Your task to perform on an android device: check out phone information Image 0: 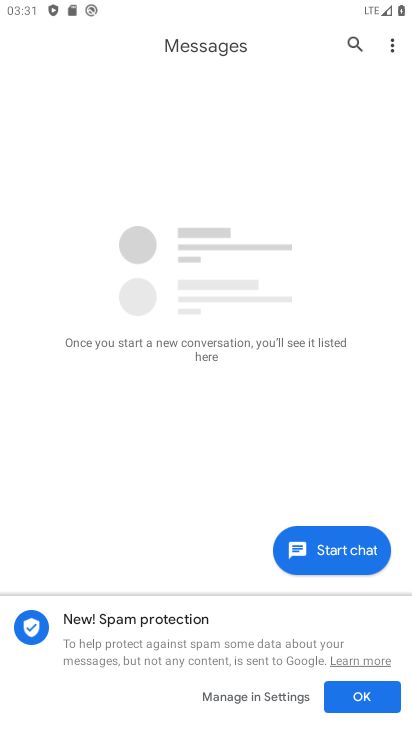
Step 0: press home button
Your task to perform on an android device: check out phone information Image 1: 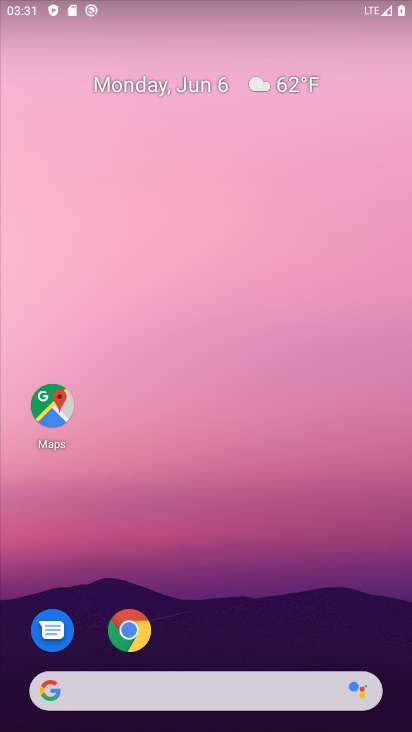
Step 1: drag from (215, 645) to (258, 72)
Your task to perform on an android device: check out phone information Image 2: 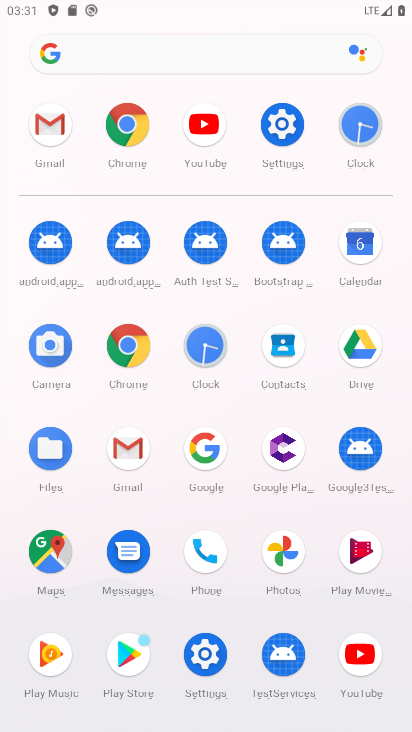
Step 2: click (193, 565)
Your task to perform on an android device: check out phone information Image 3: 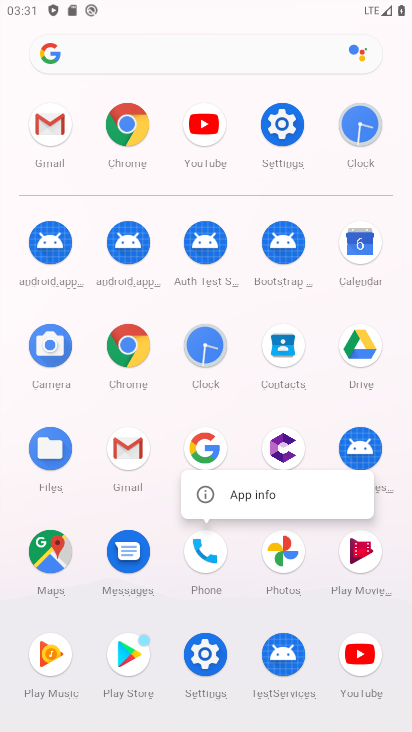
Step 3: click (238, 501)
Your task to perform on an android device: check out phone information Image 4: 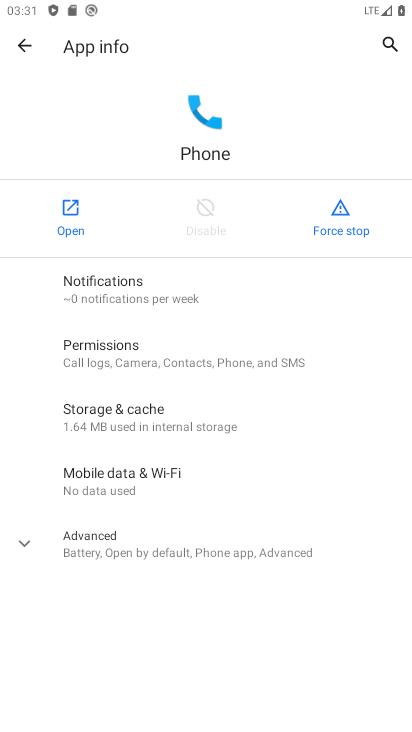
Step 4: task complete